Your task to perform on an android device: star an email in the gmail app Image 0: 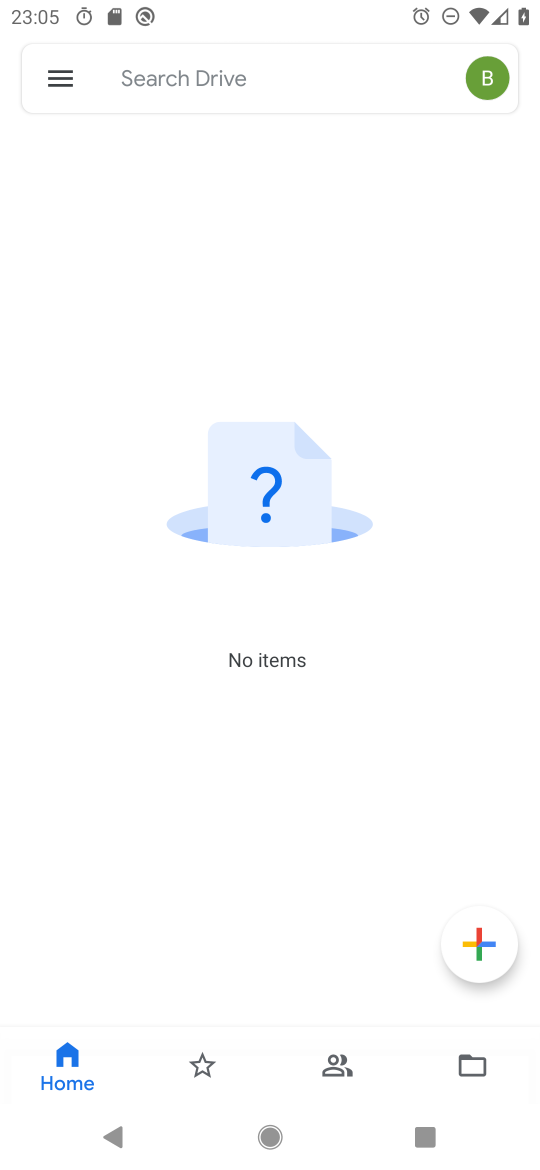
Step 0: press home button
Your task to perform on an android device: star an email in the gmail app Image 1: 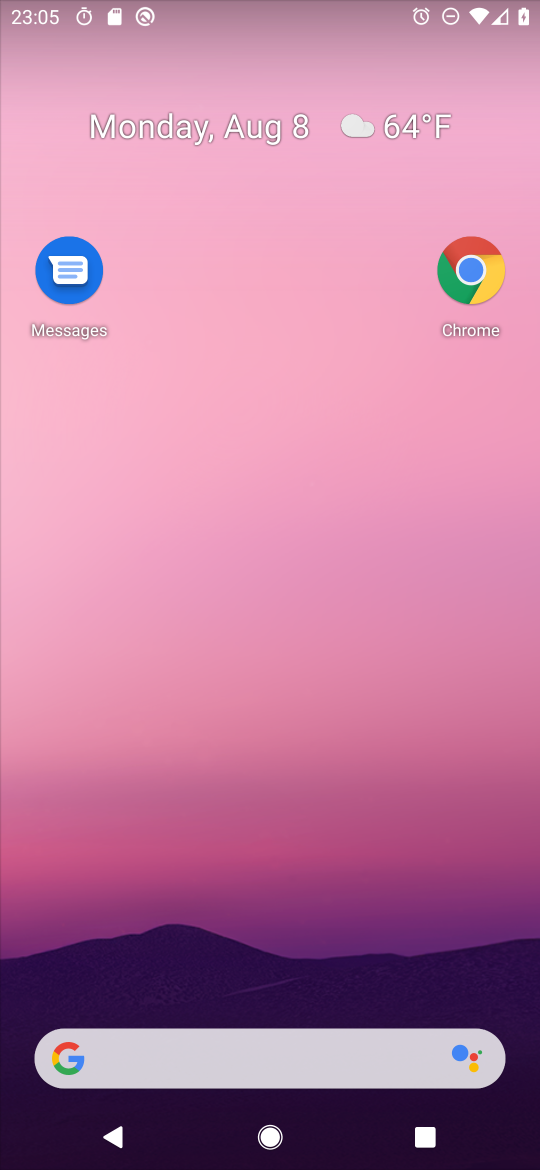
Step 1: drag from (337, 809) to (370, 509)
Your task to perform on an android device: star an email in the gmail app Image 2: 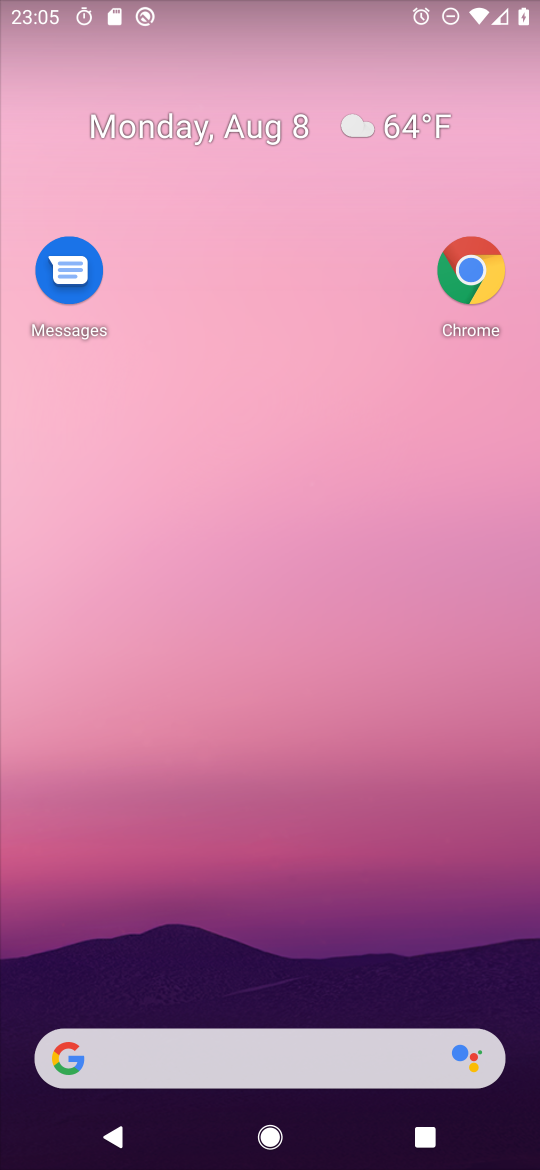
Step 2: drag from (355, 953) to (515, 658)
Your task to perform on an android device: star an email in the gmail app Image 3: 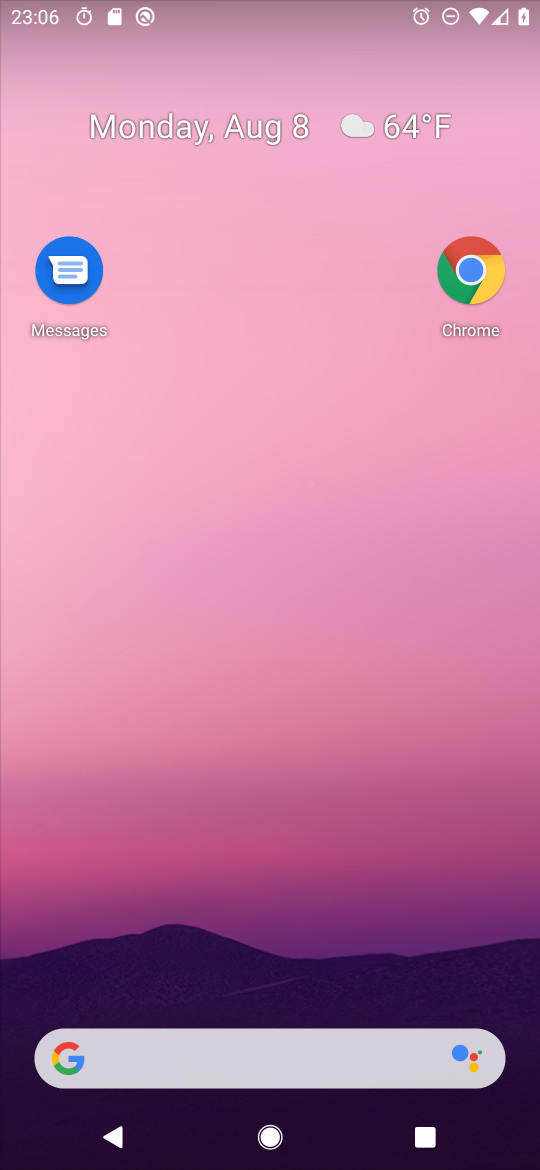
Step 3: drag from (351, 584) to (436, 185)
Your task to perform on an android device: star an email in the gmail app Image 4: 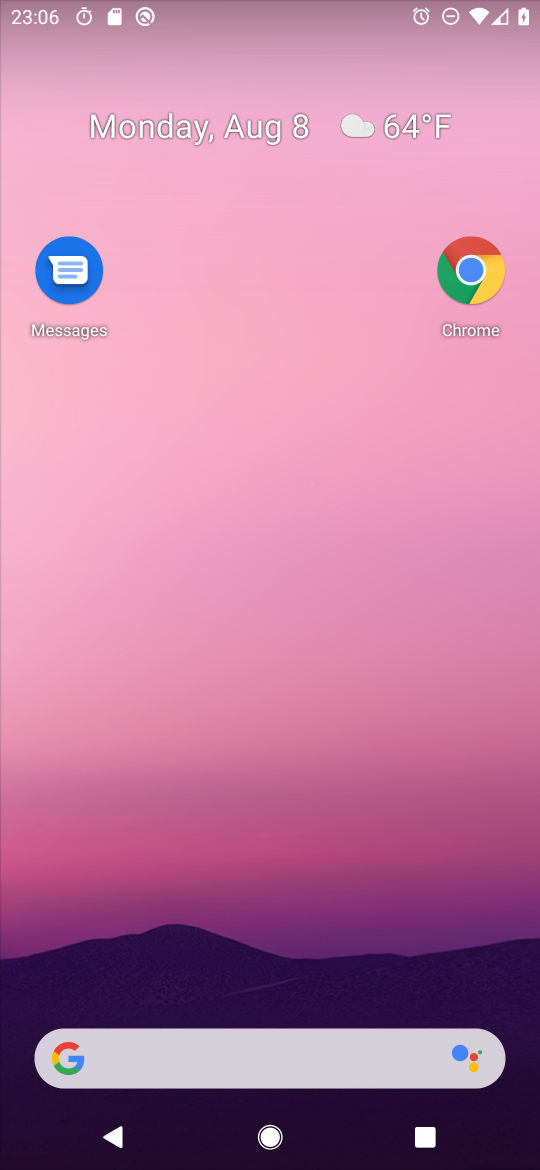
Step 4: drag from (297, 748) to (396, 237)
Your task to perform on an android device: star an email in the gmail app Image 5: 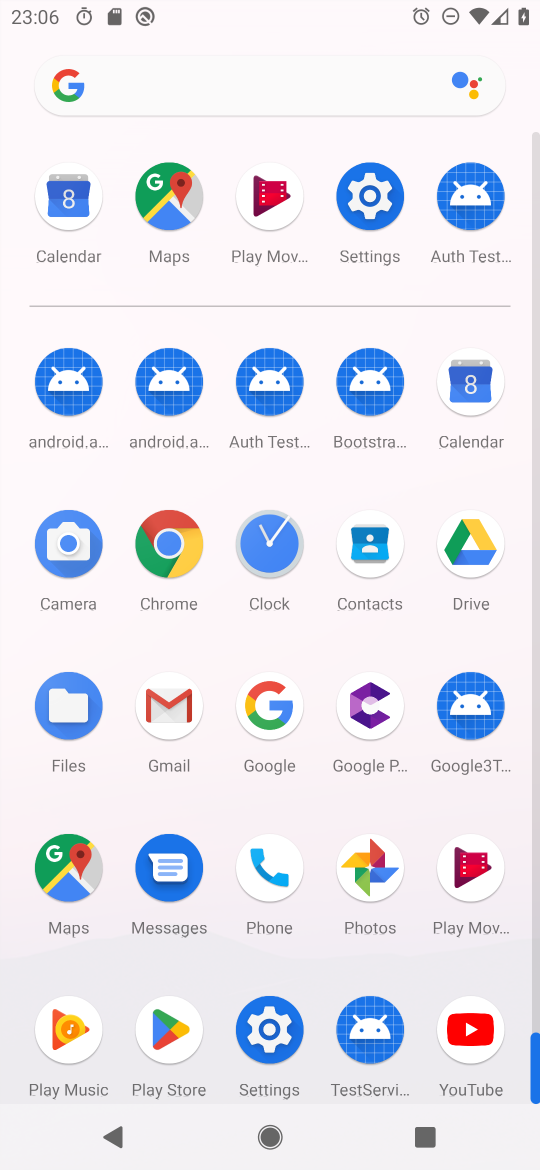
Step 5: click (167, 697)
Your task to perform on an android device: star an email in the gmail app Image 6: 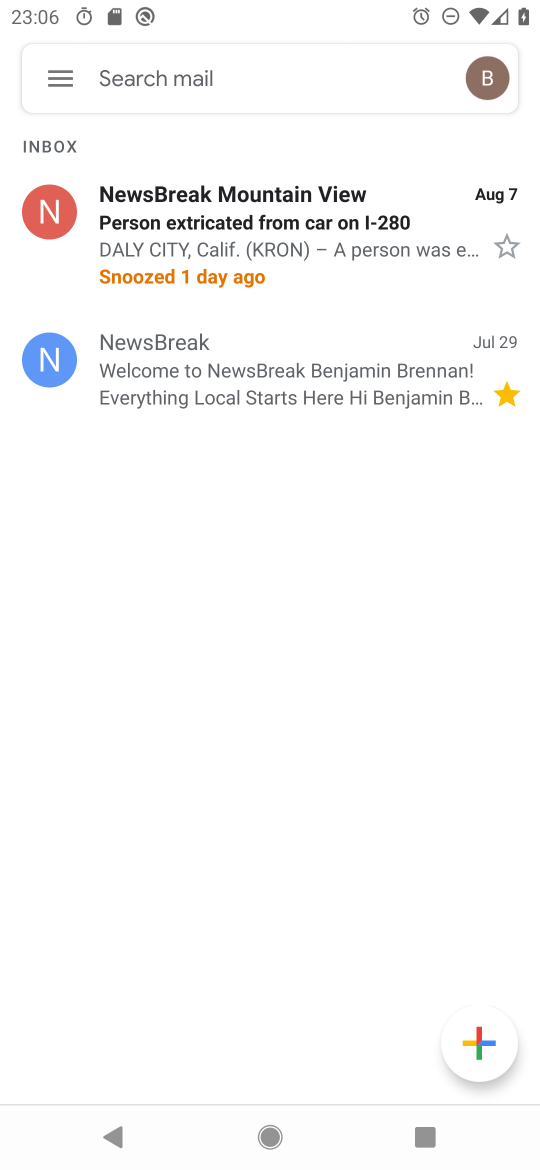
Step 6: click (58, 75)
Your task to perform on an android device: star an email in the gmail app Image 7: 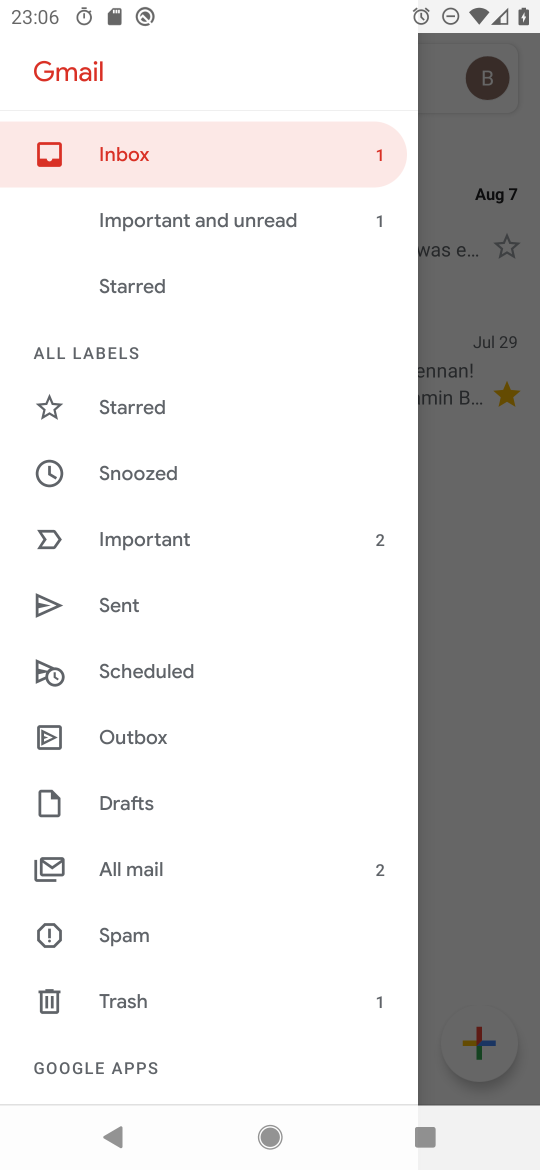
Step 7: click (470, 615)
Your task to perform on an android device: star an email in the gmail app Image 8: 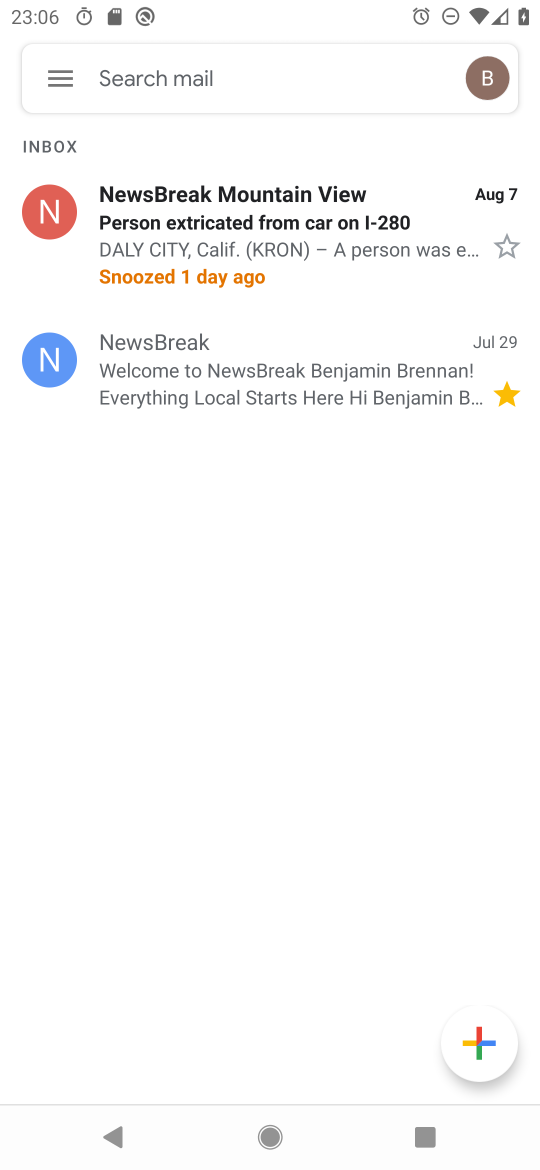
Step 8: click (247, 230)
Your task to perform on an android device: star an email in the gmail app Image 9: 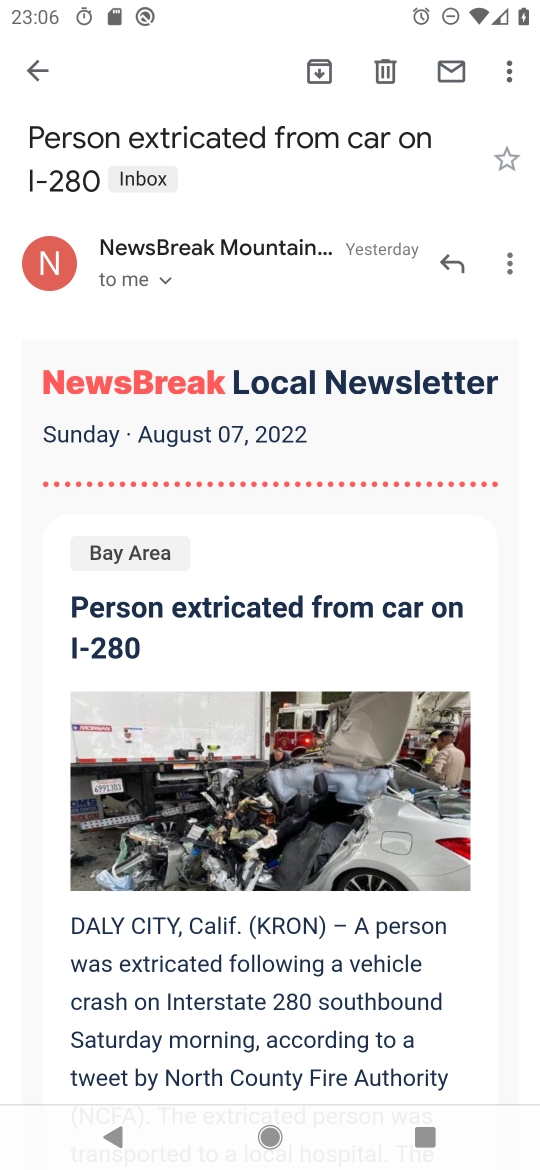
Step 9: click (495, 159)
Your task to perform on an android device: star an email in the gmail app Image 10: 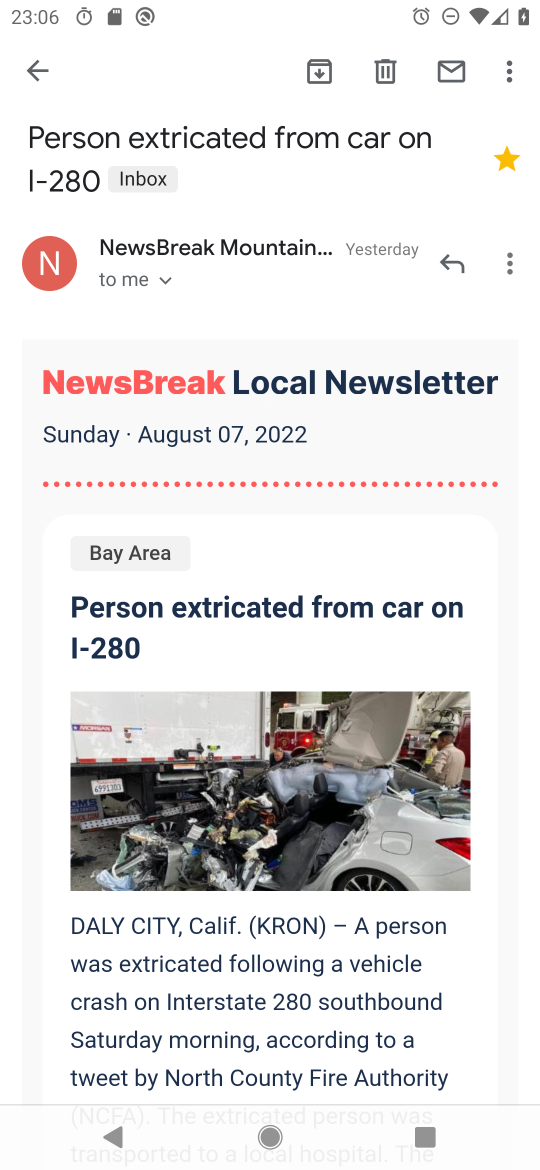
Step 10: task complete